Your task to perform on an android device: Open privacy settings Image 0: 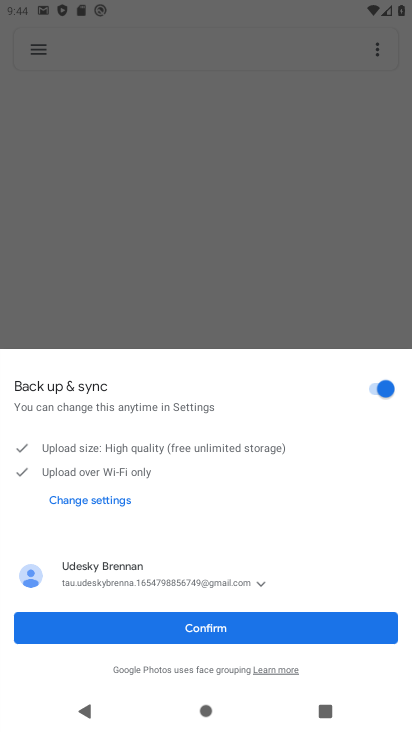
Step 0: click (198, 622)
Your task to perform on an android device: Open privacy settings Image 1: 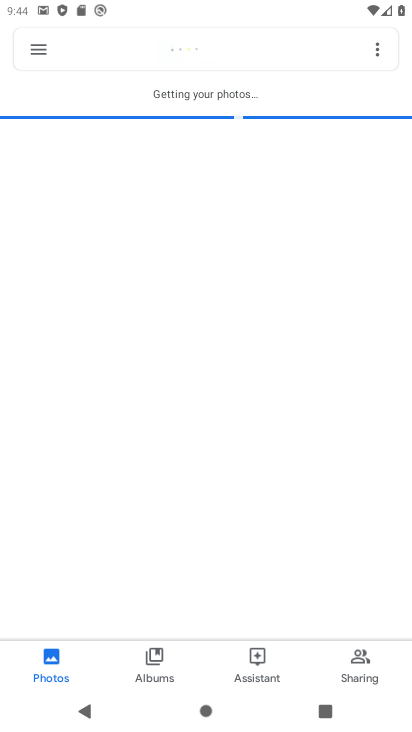
Step 1: click (42, 44)
Your task to perform on an android device: Open privacy settings Image 2: 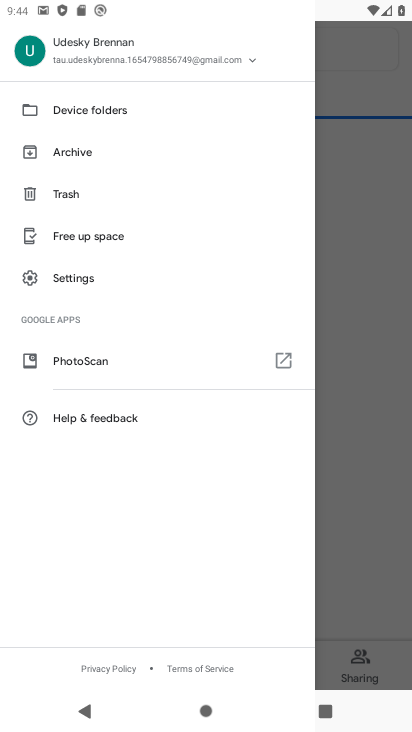
Step 2: press back button
Your task to perform on an android device: Open privacy settings Image 3: 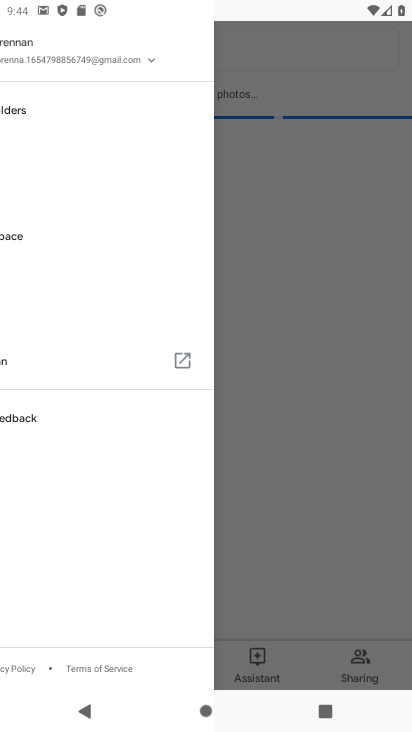
Step 3: press back button
Your task to perform on an android device: Open privacy settings Image 4: 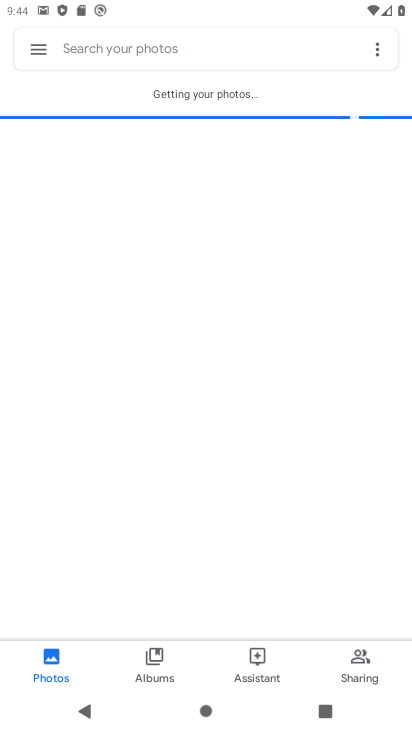
Step 4: press back button
Your task to perform on an android device: Open privacy settings Image 5: 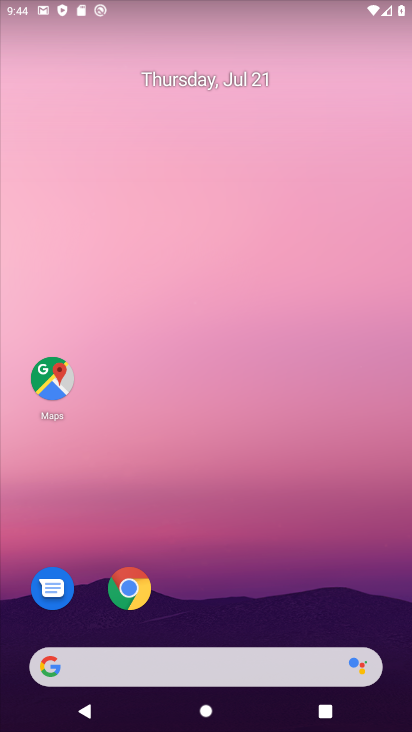
Step 5: drag from (159, 619) to (306, 14)
Your task to perform on an android device: Open privacy settings Image 6: 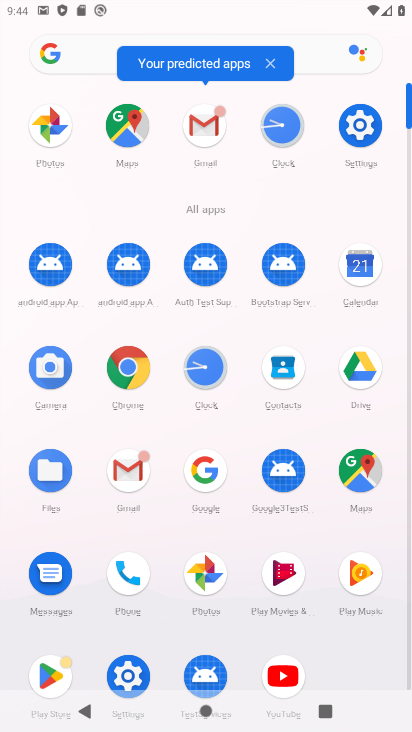
Step 6: click (358, 128)
Your task to perform on an android device: Open privacy settings Image 7: 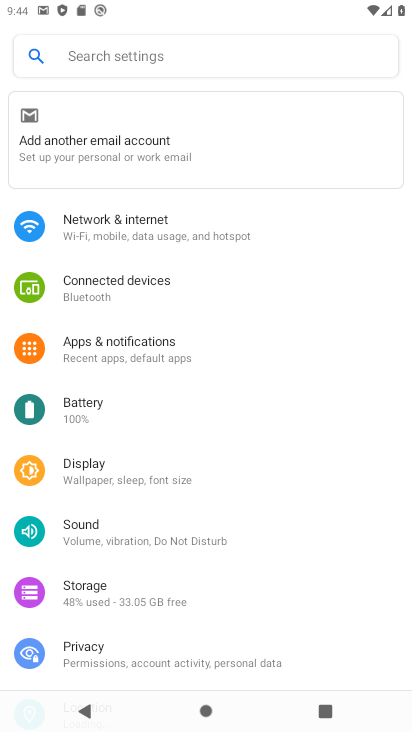
Step 7: click (91, 653)
Your task to perform on an android device: Open privacy settings Image 8: 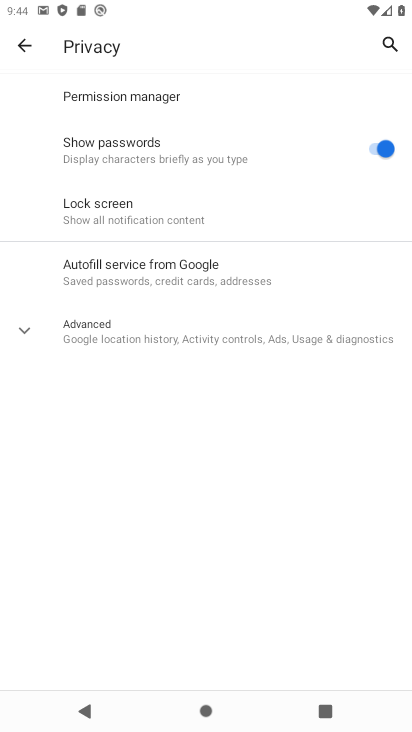
Step 8: task complete